Your task to perform on an android device: Open Google Maps and go to "Timeline" Image 0: 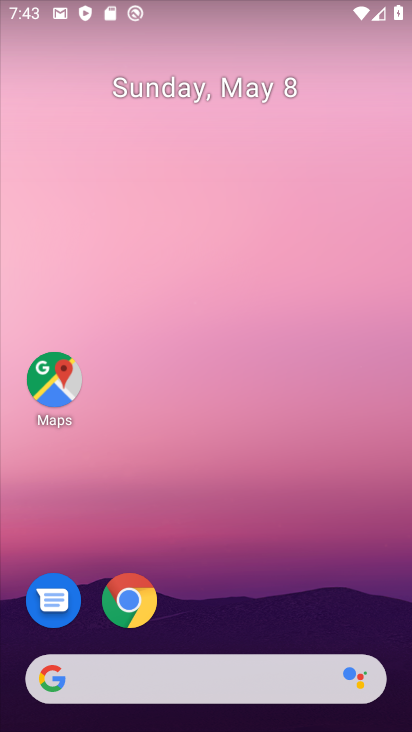
Step 0: drag from (260, 573) to (320, 218)
Your task to perform on an android device: Open Google Maps and go to "Timeline" Image 1: 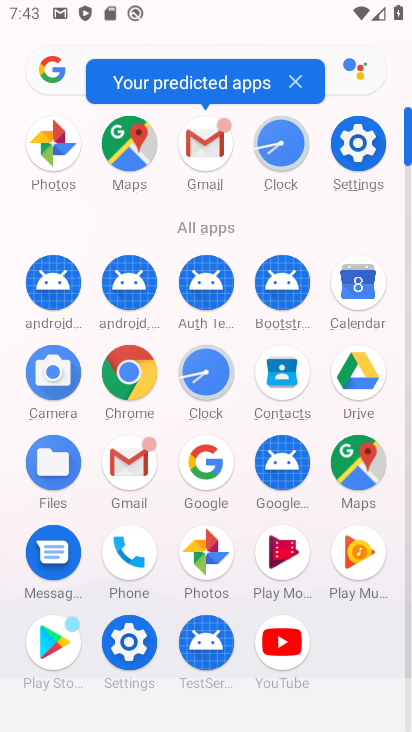
Step 1: click (128, 145)
Your task to perform on an android device: Open Google Maps and go to "Timeline" Image 2: 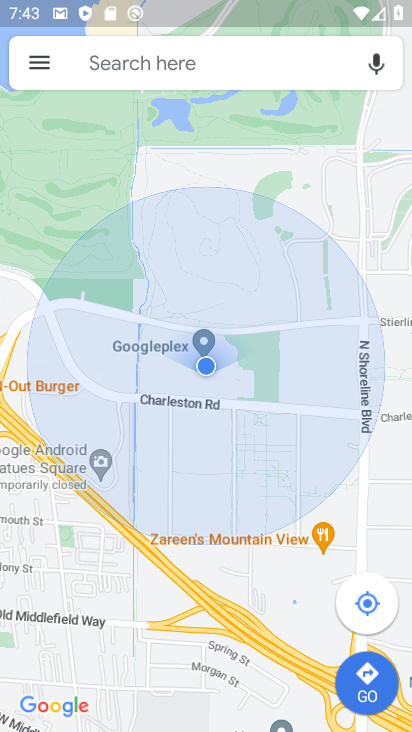
Step 2: click (38, 61)
Your task to perform on an android device: Open Google Maps and go to "Timeline" Image 3: 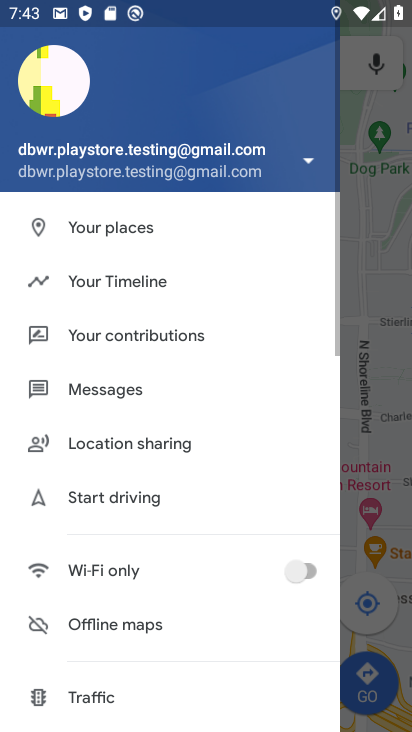
Step 3: click (131, 279)
Your task to perform on an android device: Open Google Maps and go to "Timeline" Image 4: 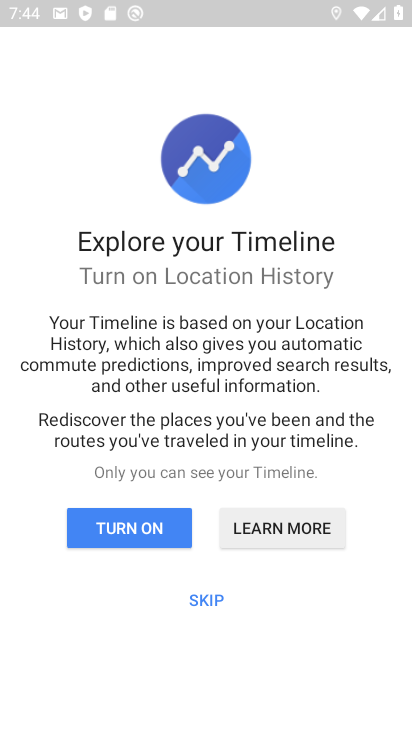
Step 4: click (198, 614)
Your task to perform on an android device: Open Google Maps and go to "Timeline" Image 5: 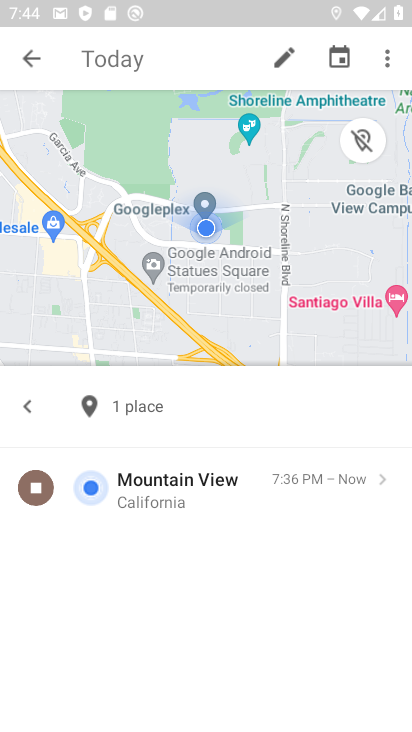
Step 5: task complete